Your task to perform on an android device: allow notifications from all sites in the chrome app Image 0: 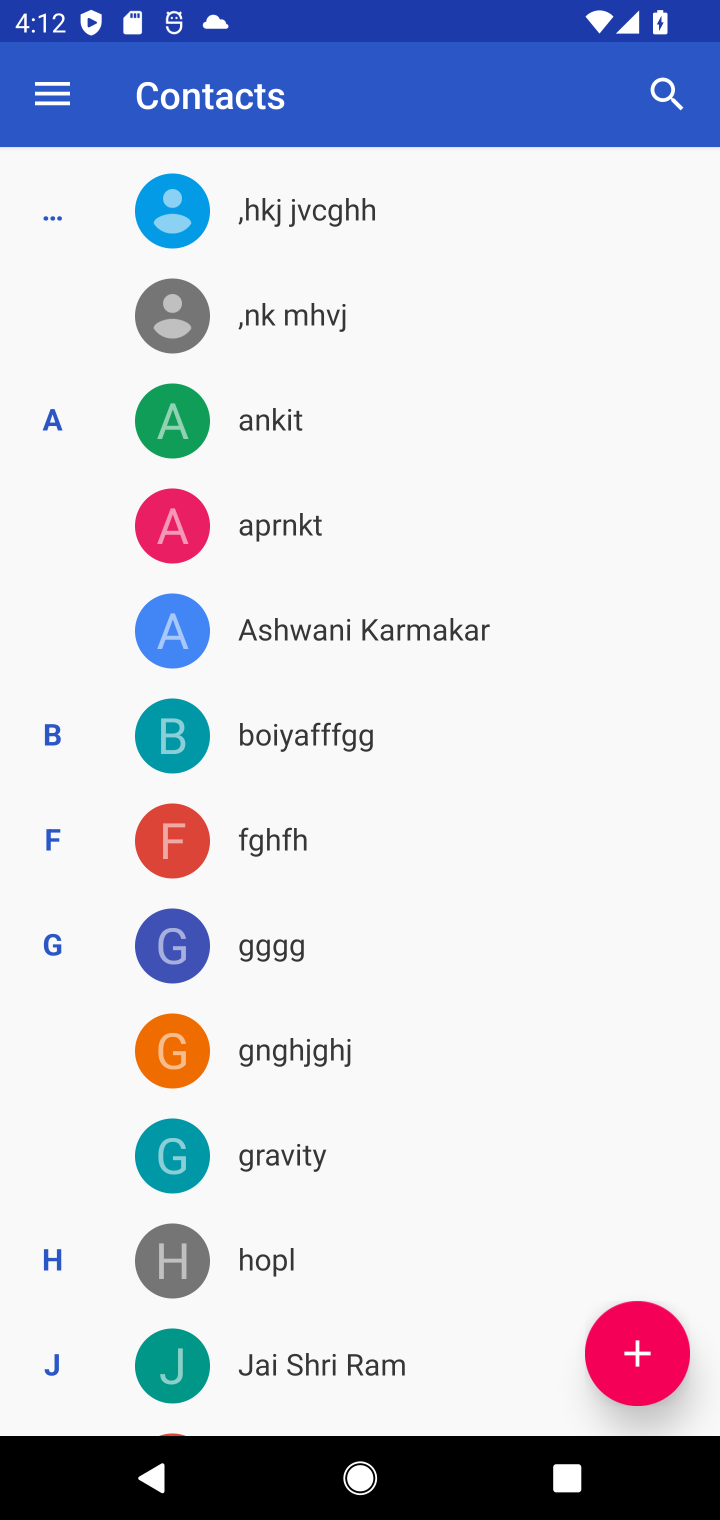
Step 0: press home button
Your task to perform on an android device: allow notifications from all sites in the chrome app Image 1: 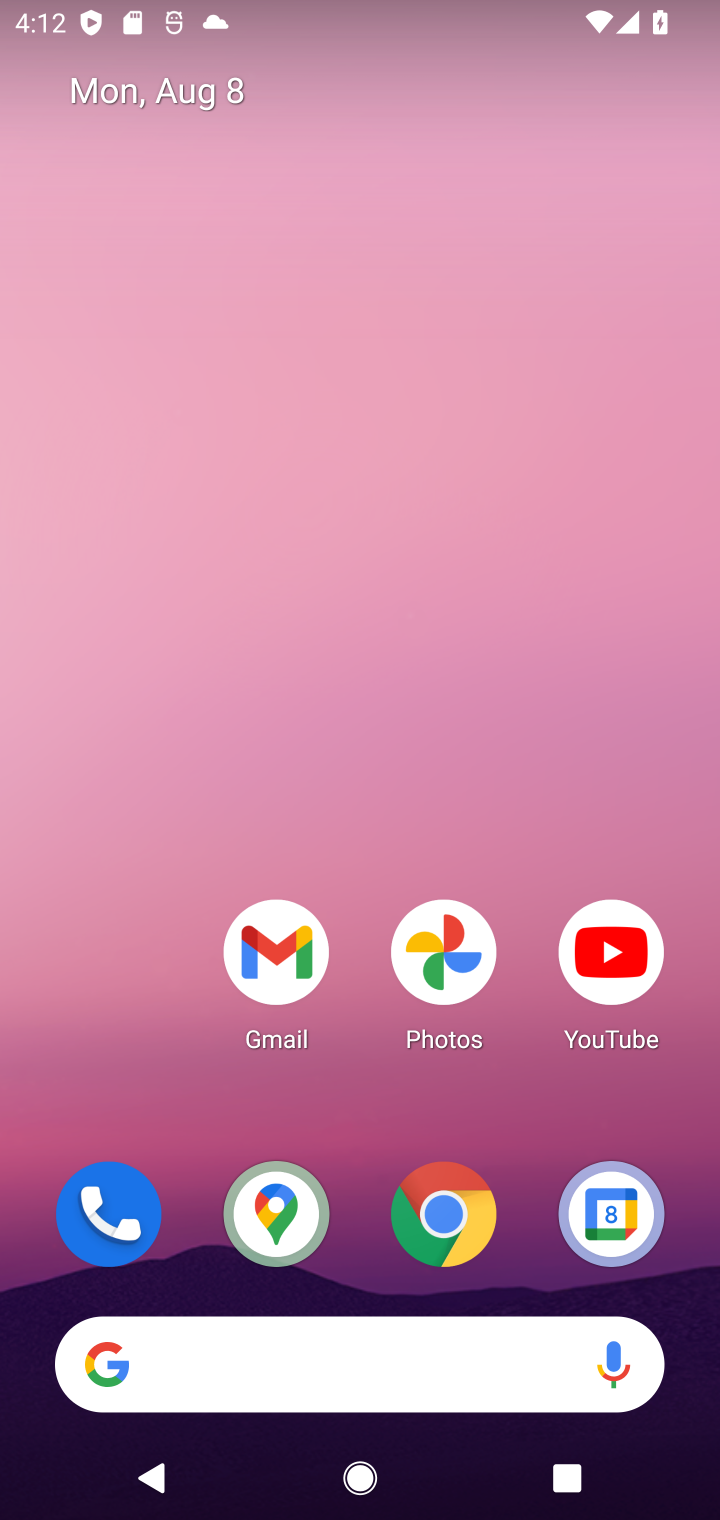
Step 1: click (442, 1213)
Your task to perform on an android device: allow notifications from all sites in the chrome app Image 2: 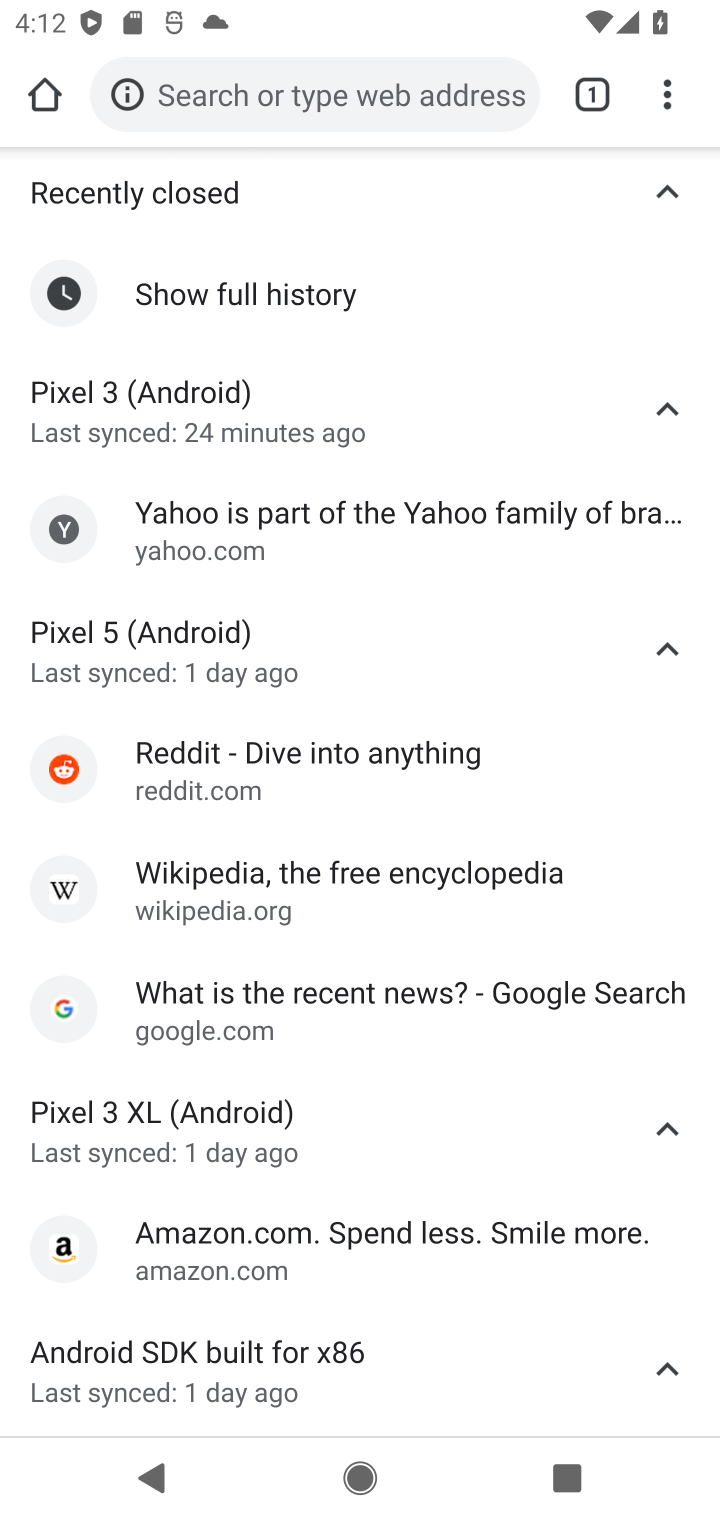
Step 2: click (664, 106)
Your task to perform on an android device: allow notifications from all sites in the chrome app Image 3: 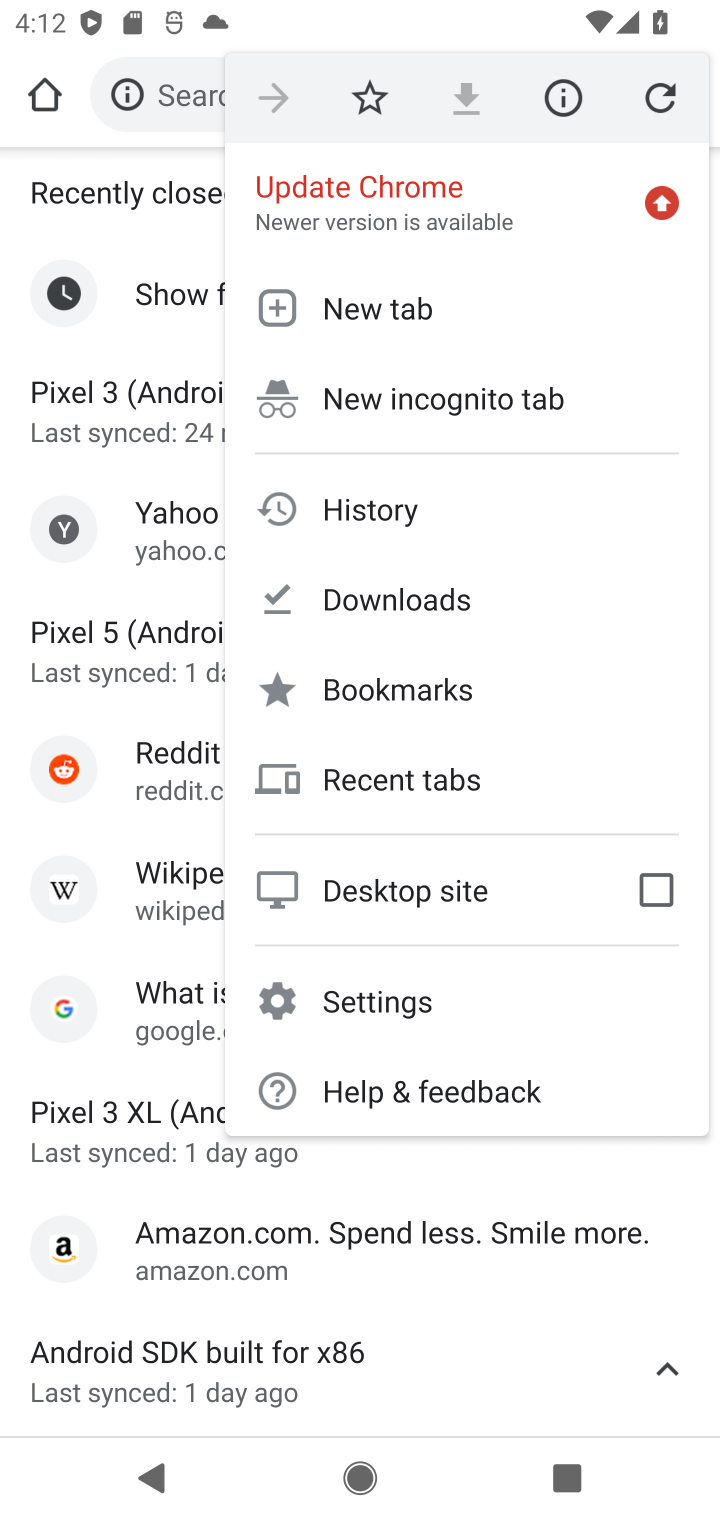
Step 3: click (395, 996)
Your task to perform on an android device: allow notifications from all sites in the chrome app Image 4: 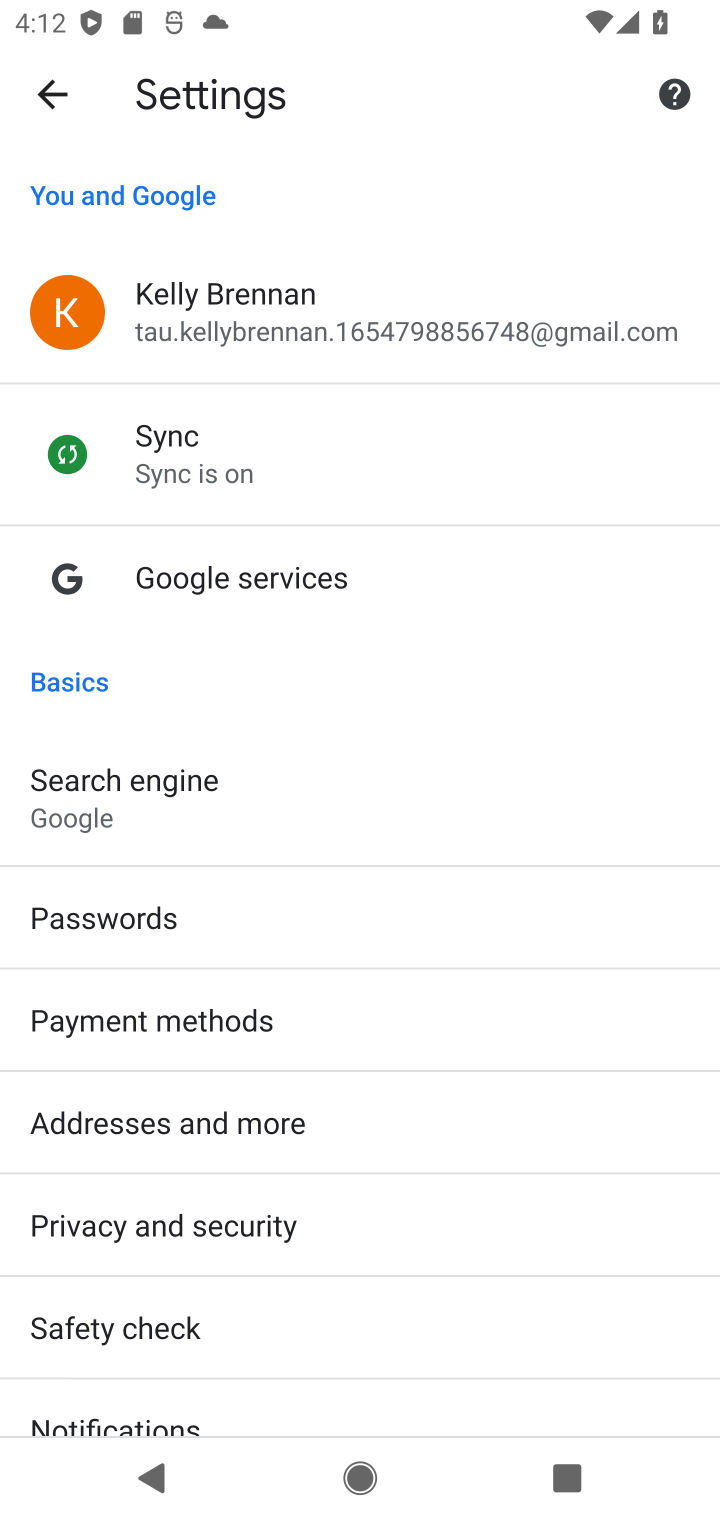
Step 4: drag from (145, 1280) to (178, 561)
Your task to perform on an android device: allow notifications from all sites in the chrome app Image 5: 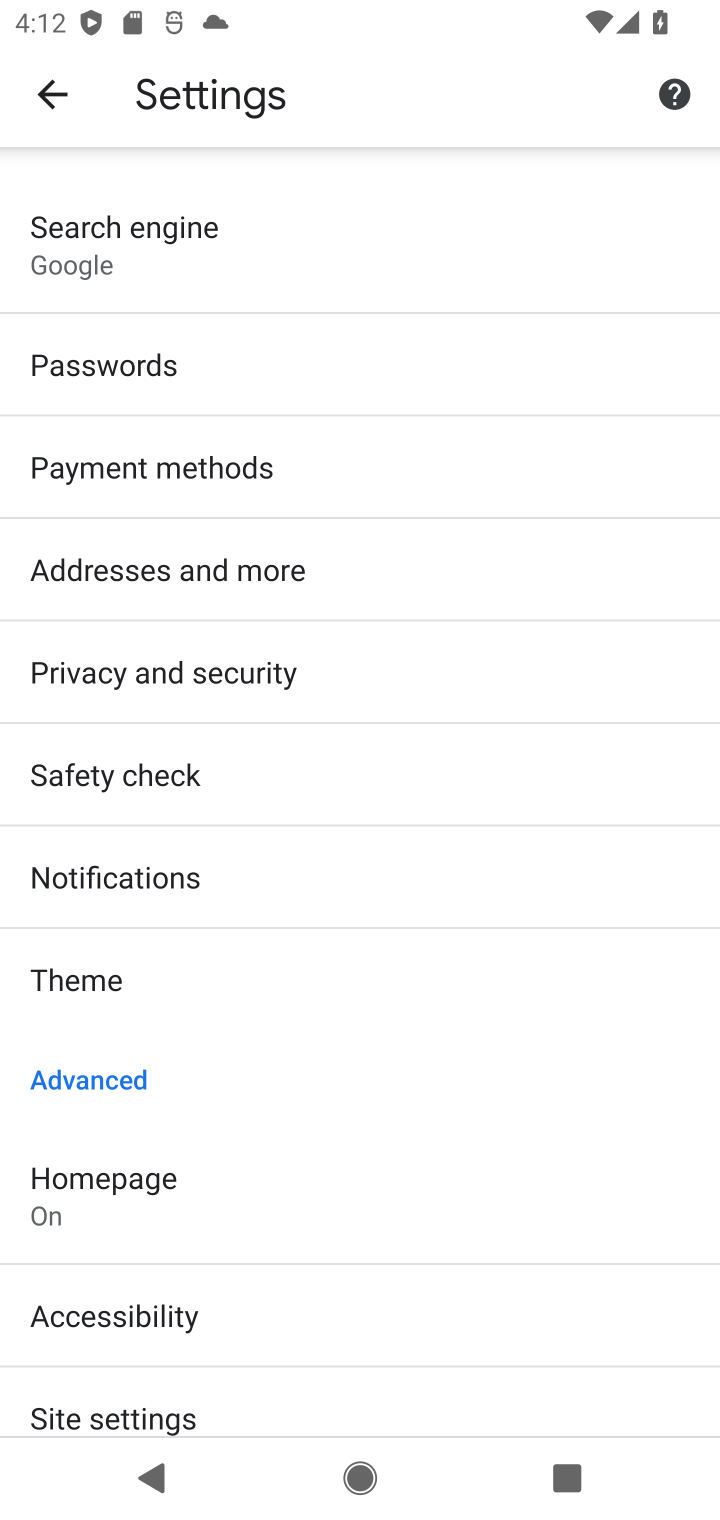
Step 5: drag from (144, 1333) to (162, 696)
Your task to perform on an android device: allow notifications from all sites in the chrome app Image 6: 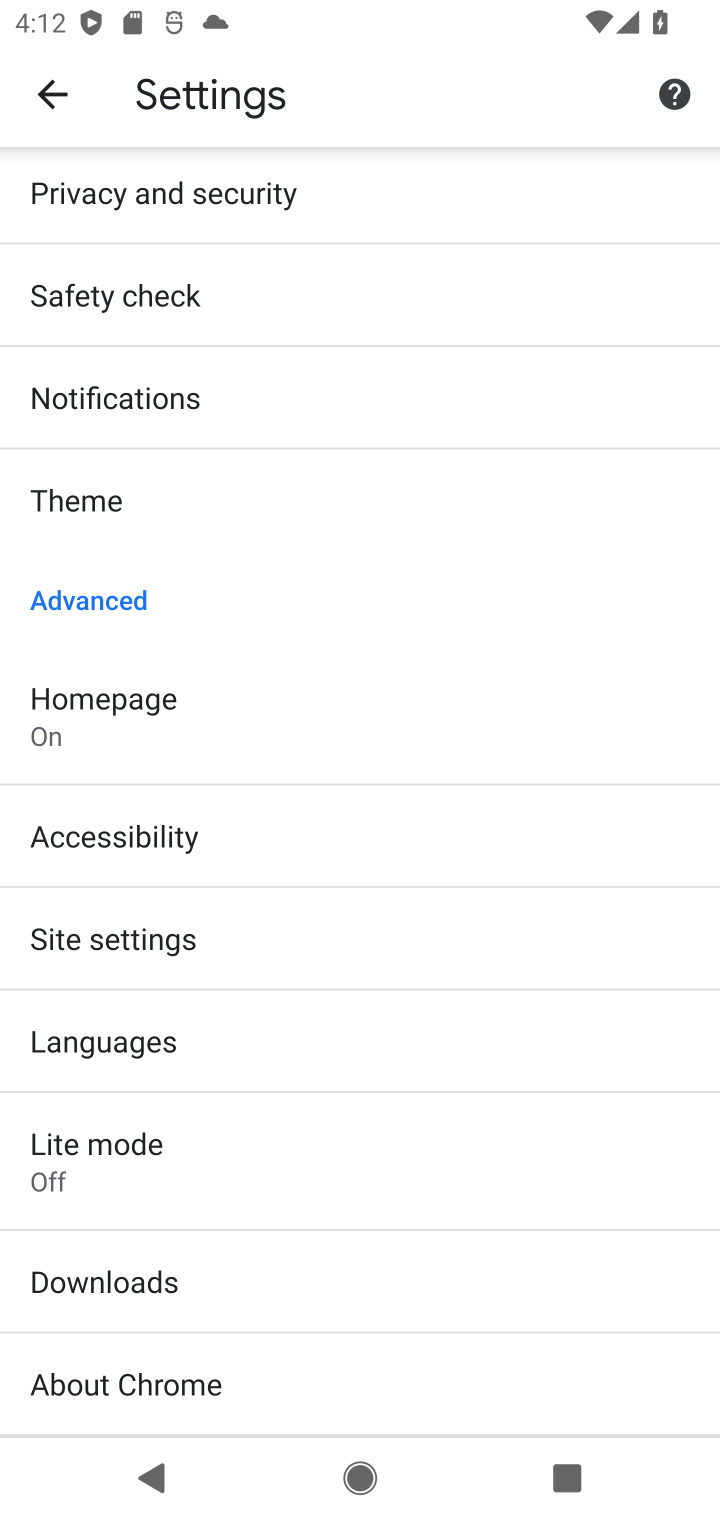
Step 6: click (153, 929)
Your task to perform on an android device: allow notifications from all sites in the chrome app Image 7: 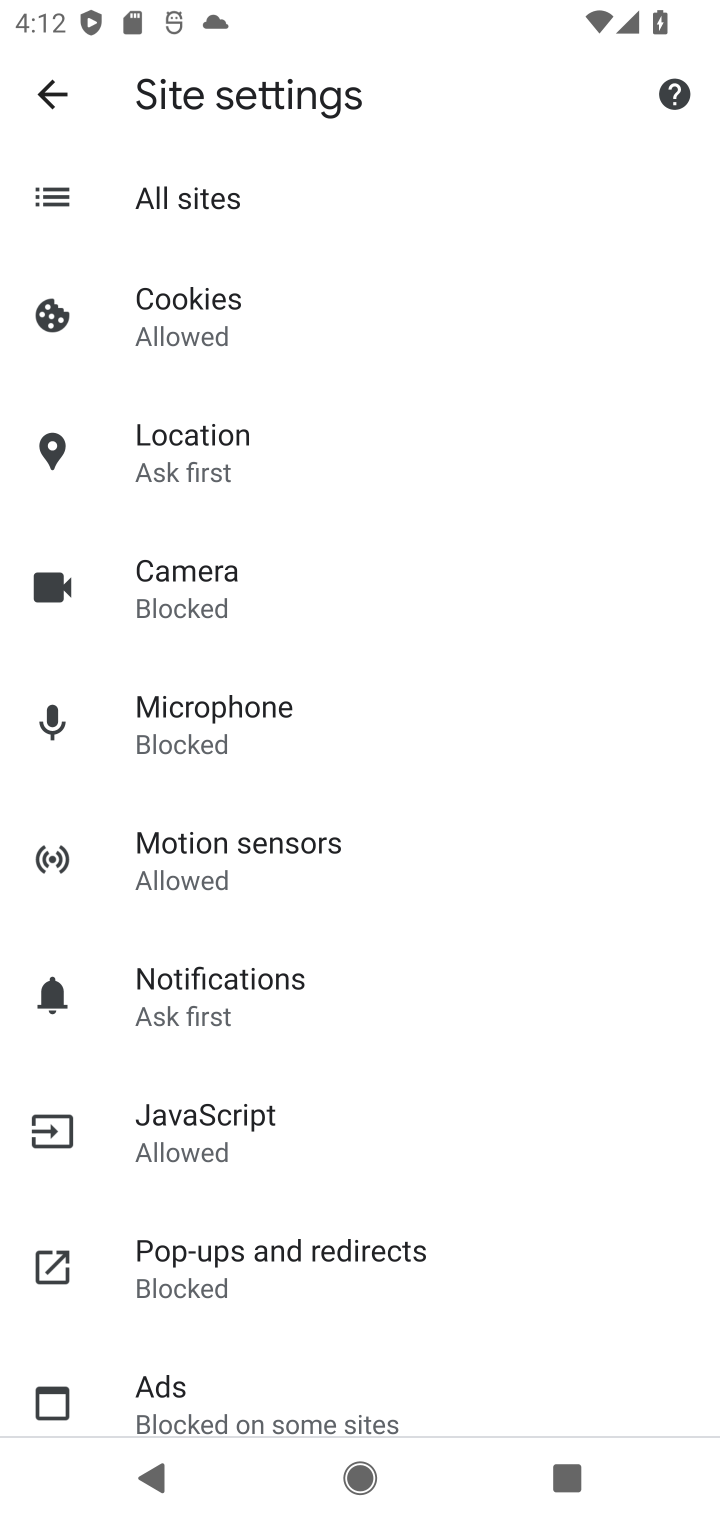
Step 7: click (194, 989)
Your task to perform on an android device: allow notifications from all sites in the chrome app Image 8: 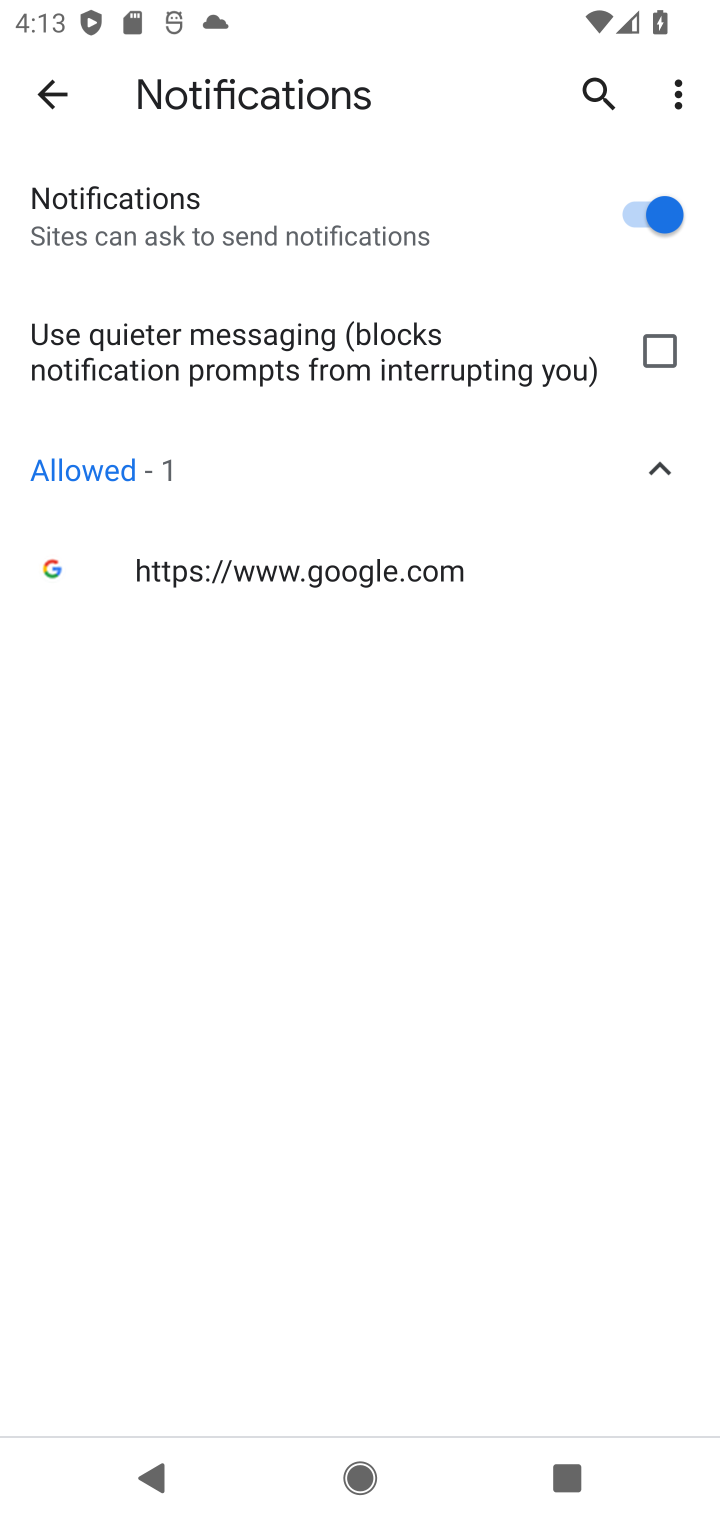
Step 8: task complete